Your task to perform on an android device: clear all cookies in the chrome app Image 0: 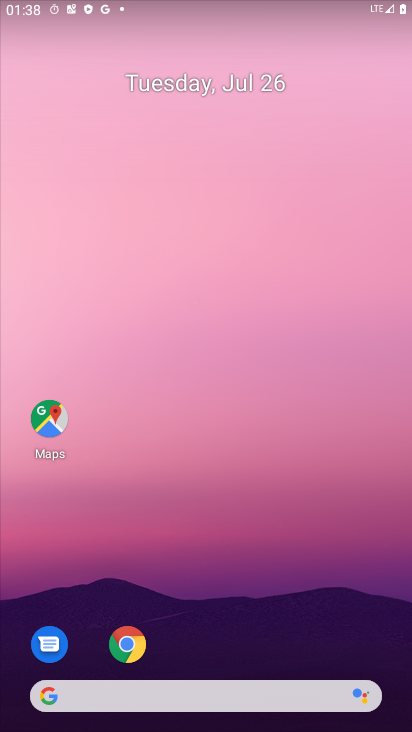
Step 0: click (127, 641)
Your task to perform on an android device: clear all cookies in the chrome app Image 1: 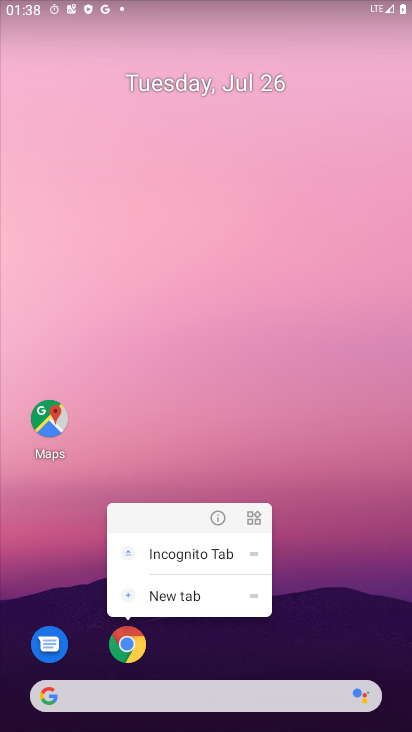
Step 1: click (133, 646)
Your task to perform on an android device: clear all cookies in the chrome app Image 2: 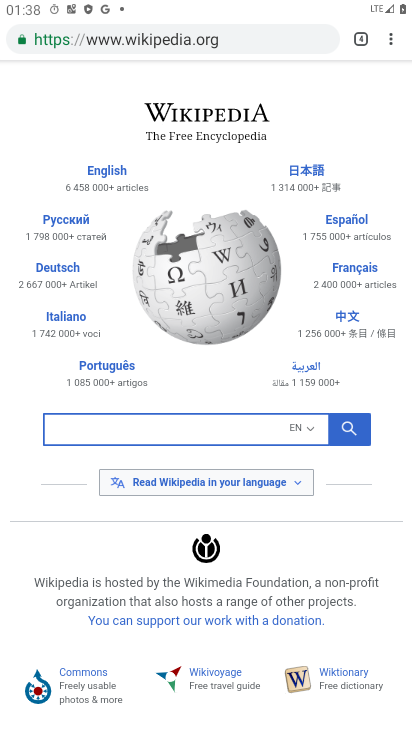
Step 2: drag from (391, 39) to (253, 477)
Your task to perform on an android device: clear all cookies in the chrome app Image 3: 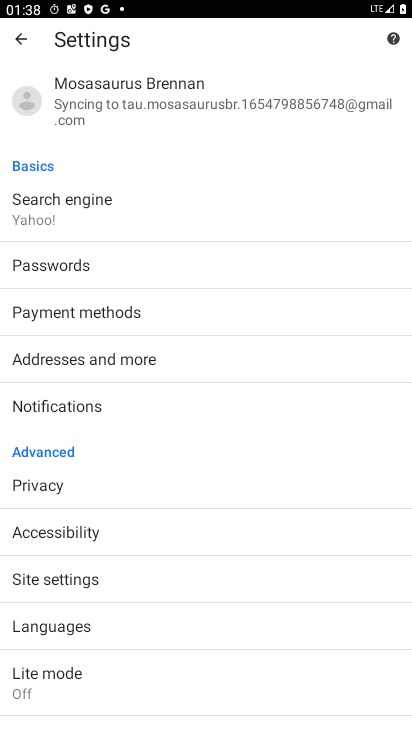
Step 3: click (17, 490)
Your task to perform on an android device: clear all cookies in the chrome app Image 4: 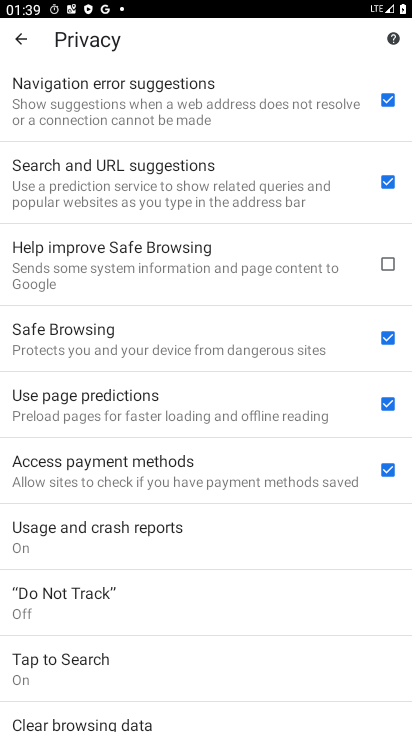
Step 4: drag from (208, 648) to (209, 498)
Your task to perform on an android device: clear all cookies in the chrome app Image 5: 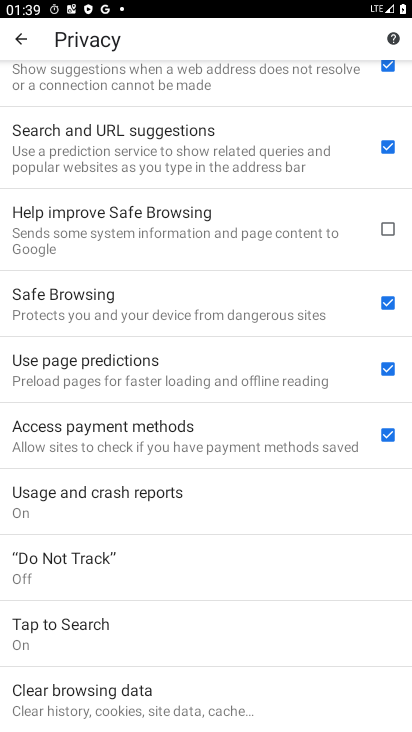
Step 5: click (90, 688)
Your task to perform on an android device: clear all cookies in the chrome app Image 6: 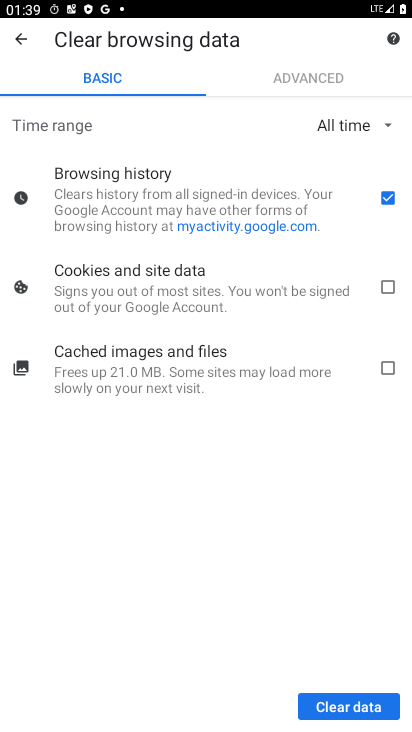
Step 6: click (384, 196)
Your task to perform on an android device: clear all cookies in the chrome app Image 7: 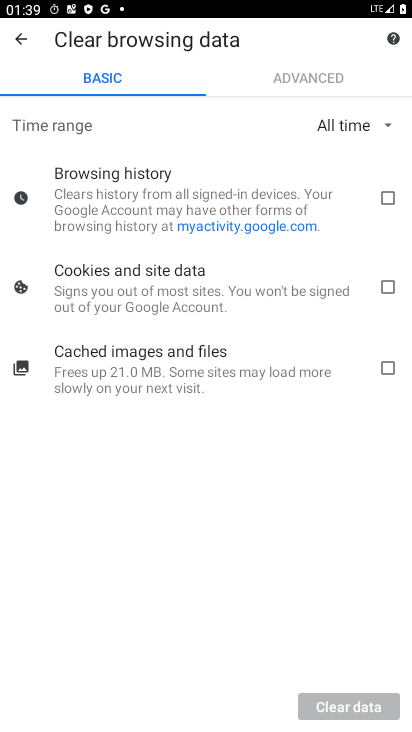
Step 7: click (386, 286)
Your task to perform on an android device: clear all cookies in the chrome app Image 8: 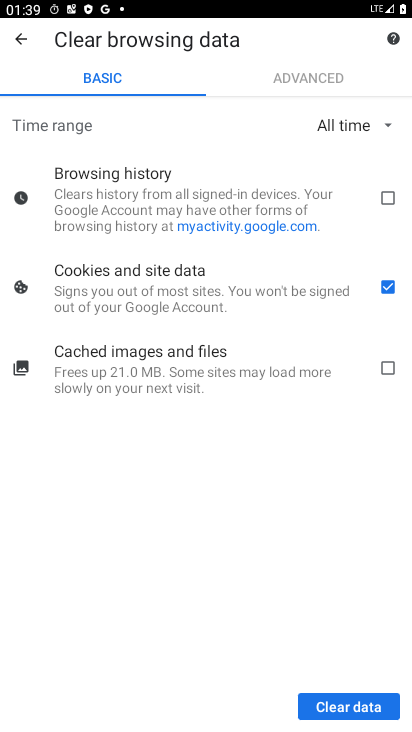
Step 8: click (362, 709)
Your task to perform on an android device: clear all cookies in the chrome app Image 9: 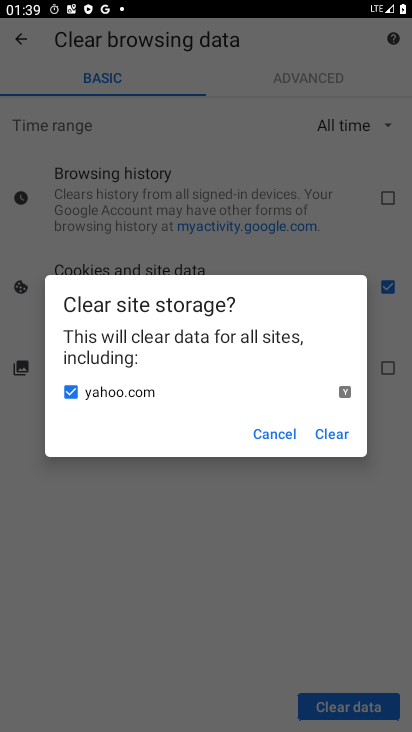
Step 9: click (317, 440)
Your task to perform on an android device: clear all cookies in the chrome app Image 10: 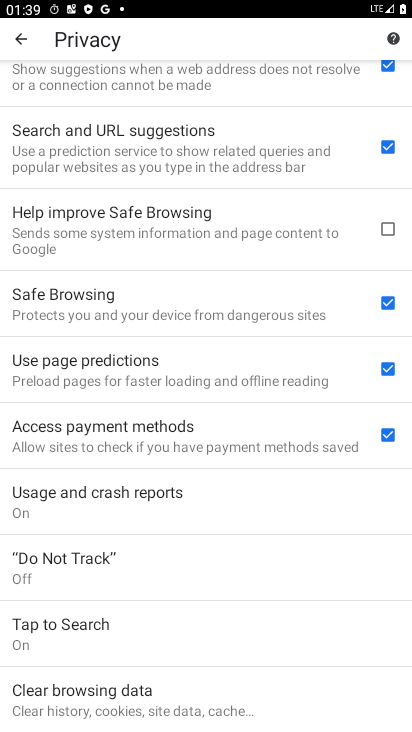
Step 10: task complete